Your task to perform on an android device: turn off priority inbox in the gmail app Image 0: 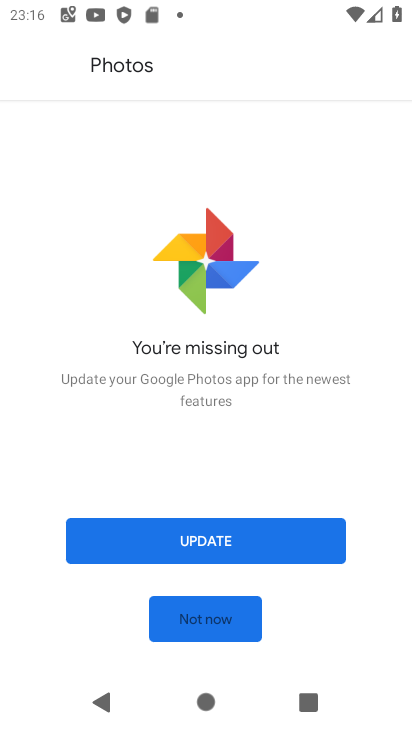
Step 0: press home button
Your task to perform on an android device: turn off priority inbox in the gmail app Image 1: 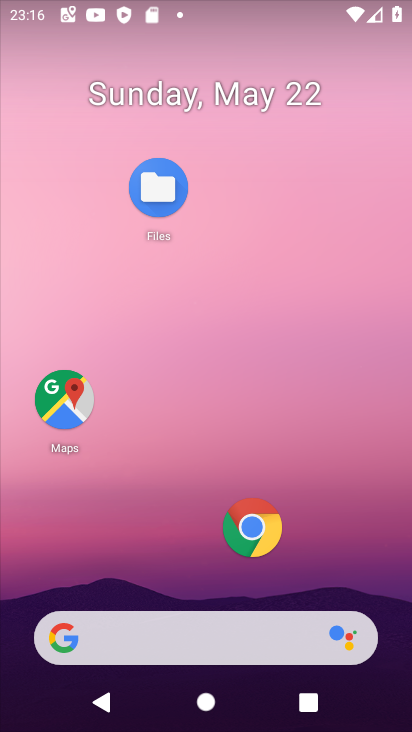
Step 1: drag from (158, 517) to (254, 173)
Your task to perform on an android device: turn off priority inbox in the gmail app Image 2: 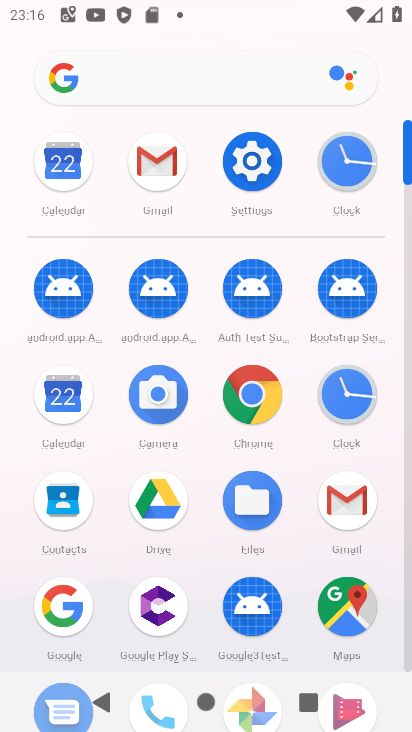
Step 2: click (150, 166)
Your task to perform on an android device: turn off priority inbox in the gmail app Image 3: 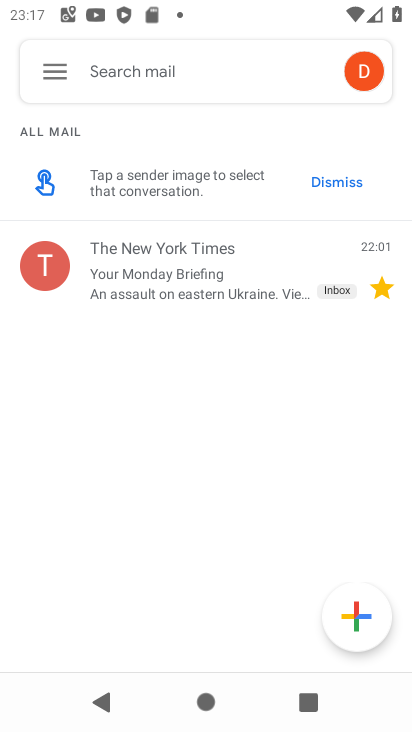
Step 3: click (54, 70)
Your task to perform on an android device: turn off priority inbox in the gmail app Image 4: 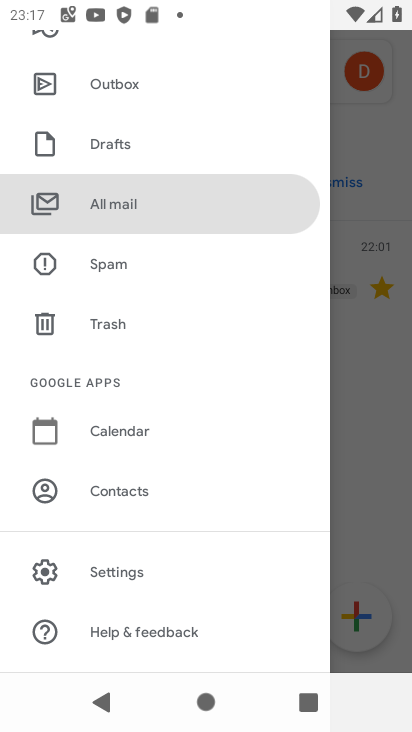
Step 4: click (129, 563)
Your task to perform on an android device: turn off priority inbox in the gmail app Image 5: 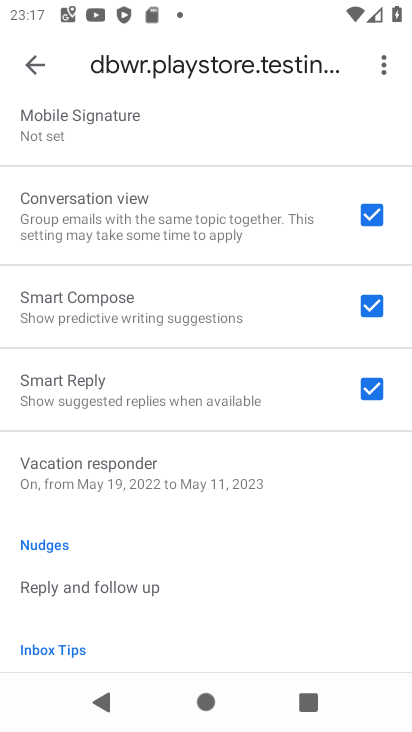
Step 5: drag from (239, 253) to (202, 662)
Your task to perform on an android device: turn off priority inbox in the gmail app Image 6: 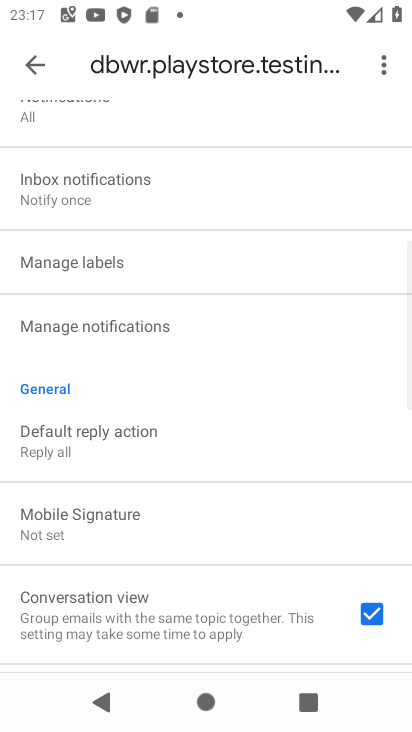
Step 6: drag from (177, 193) to (206, 687)
Your task to perform on an android device: turn off priority inbox in the gmail app Image 7: 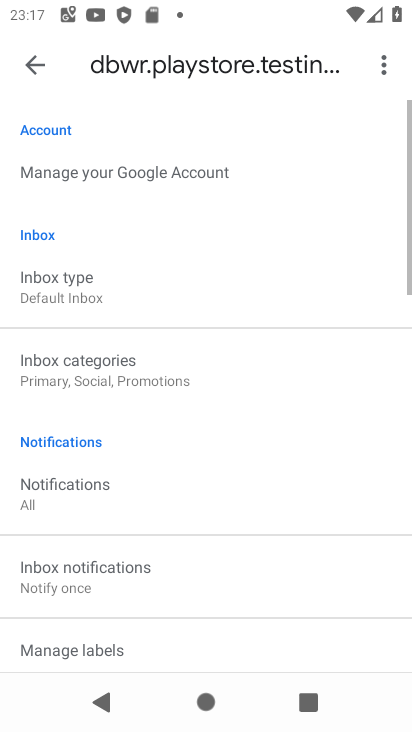
Step 7: click (190, 264)
Your task to perform on an android device: turn off priority inbox in the gmail app Image 8: 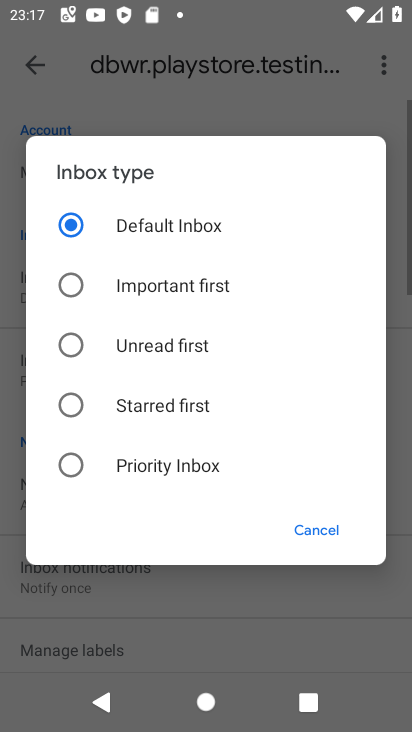
Step 8: click (72, 283)
Your task to perform on an android device: turn off priority inbox in the gmail app Image 9: 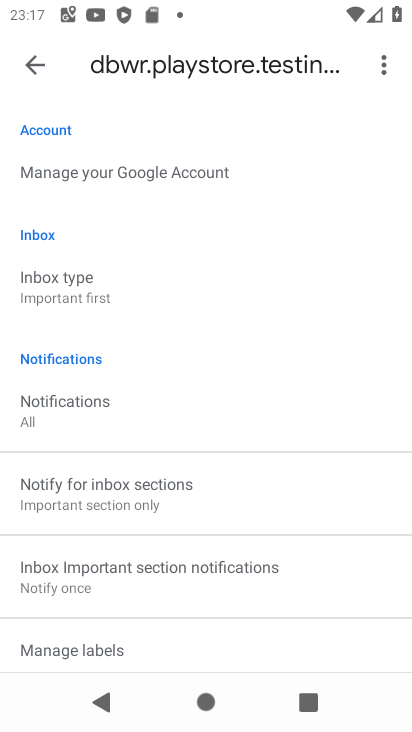
Step 9: task complete